Your task to perform on an android device: Search for the new nike air max shoes on Nike. Image 0: 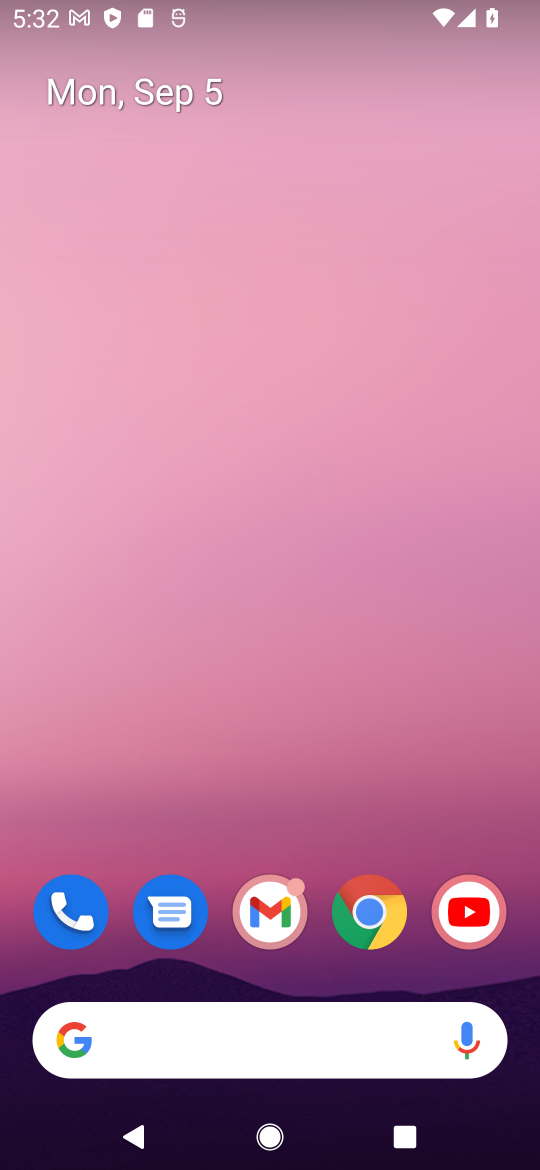
Step 0: click (376, 917)
Your task to perform on an android device: Search for the new nike air max shoes on Nike. Image 1: 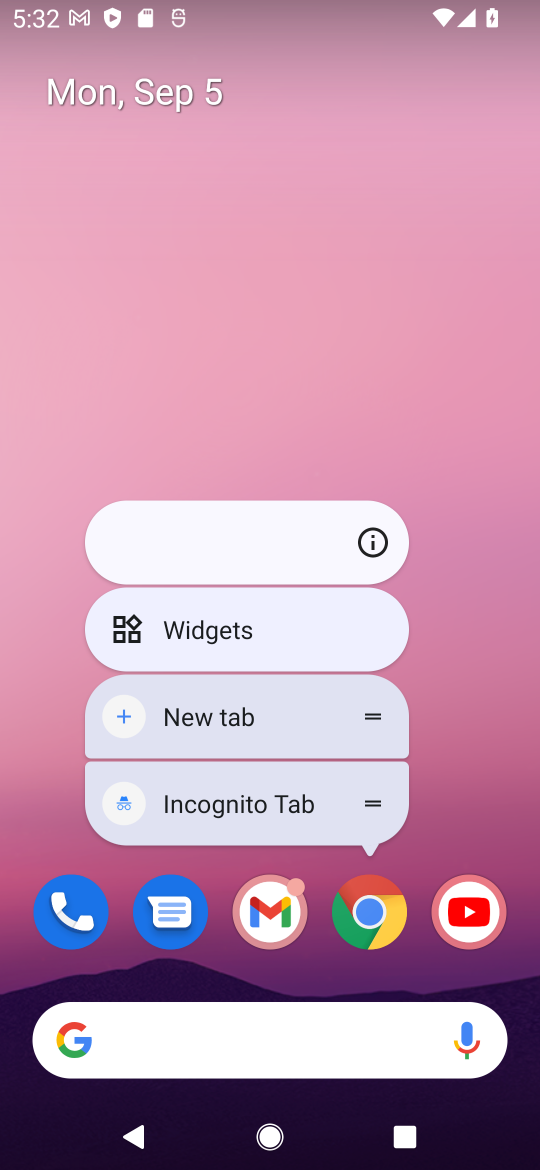
Step 1: click (376, 920)
Your task to perform on an android device: Search for the new nike air max shoes on Nike. Image 2: 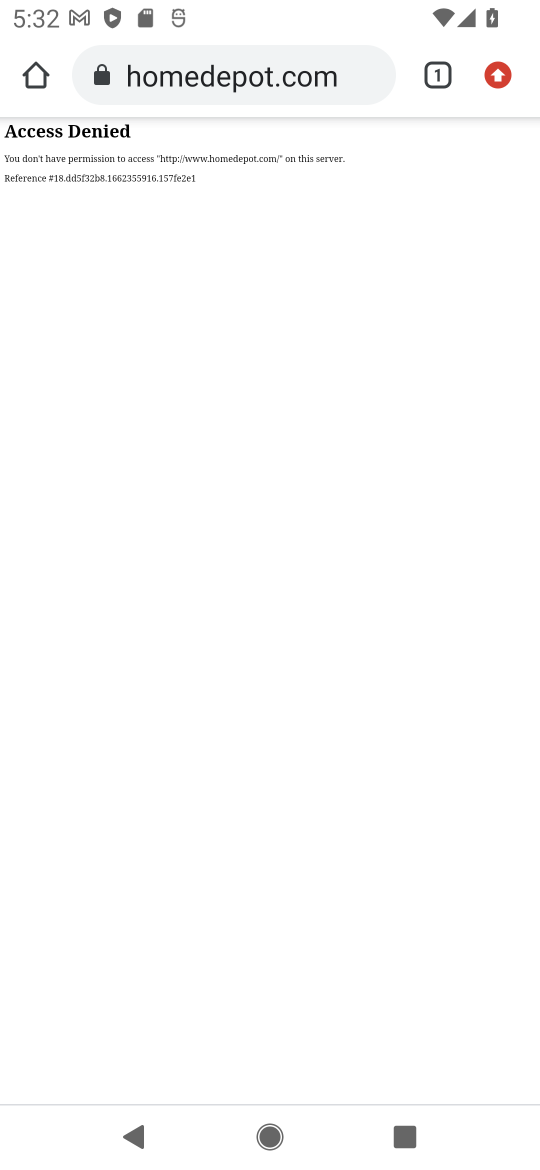
Step 2: click (232, 78)
Your task to perform on an android device: Search for the new nike air max shoes on Nike. Image 3: 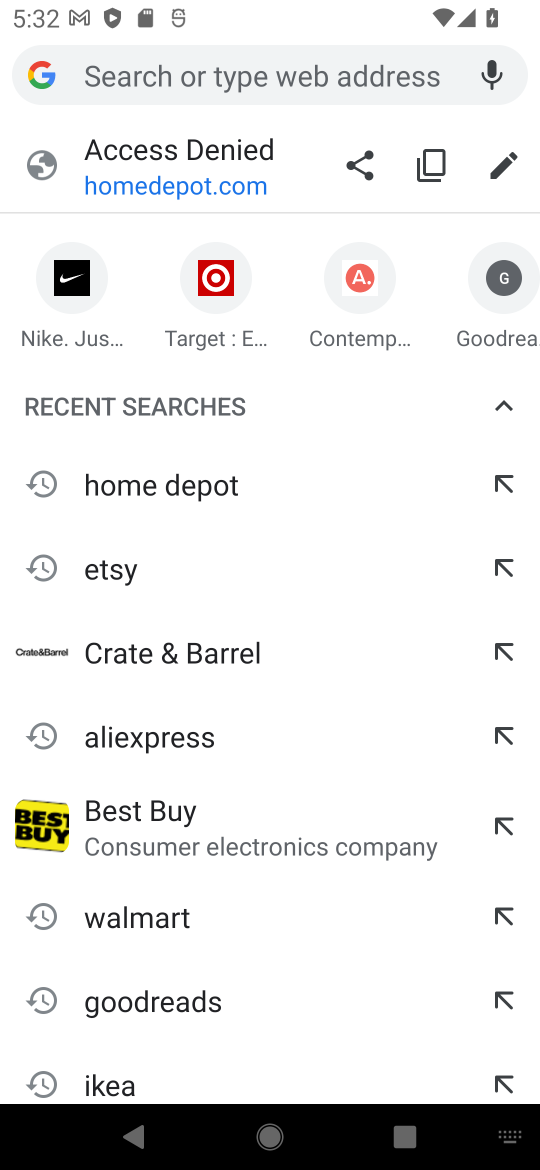
Step 3: type "nike"
Your task to perform on an android device: Search for the new nike air max shoes on Nike. Image 4: 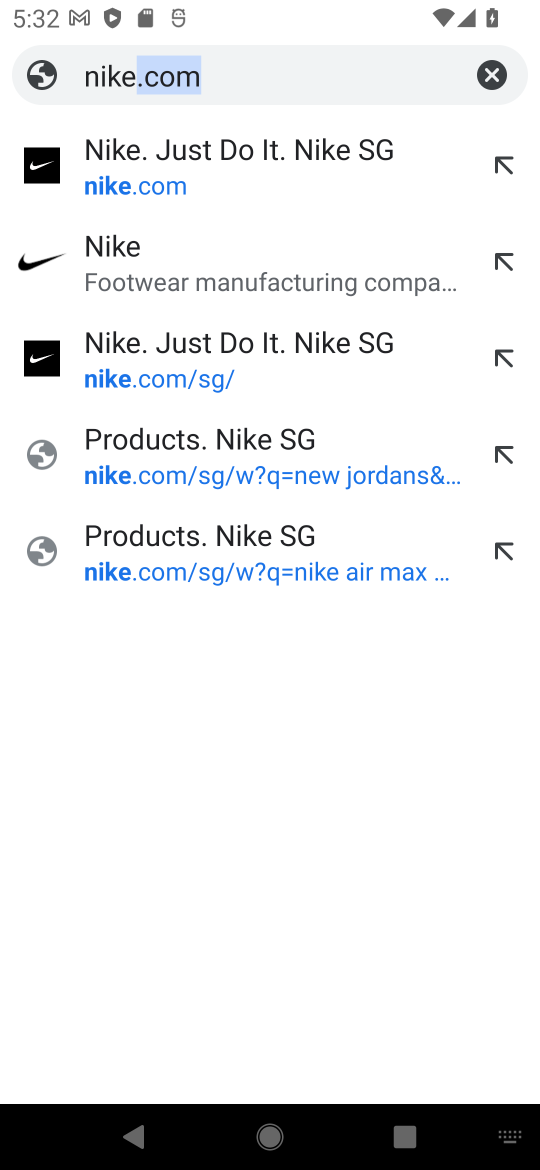
Step 4: press enter
Your task to perform on an android device: Search for the new nike air max shoes on Nike. Image 5: 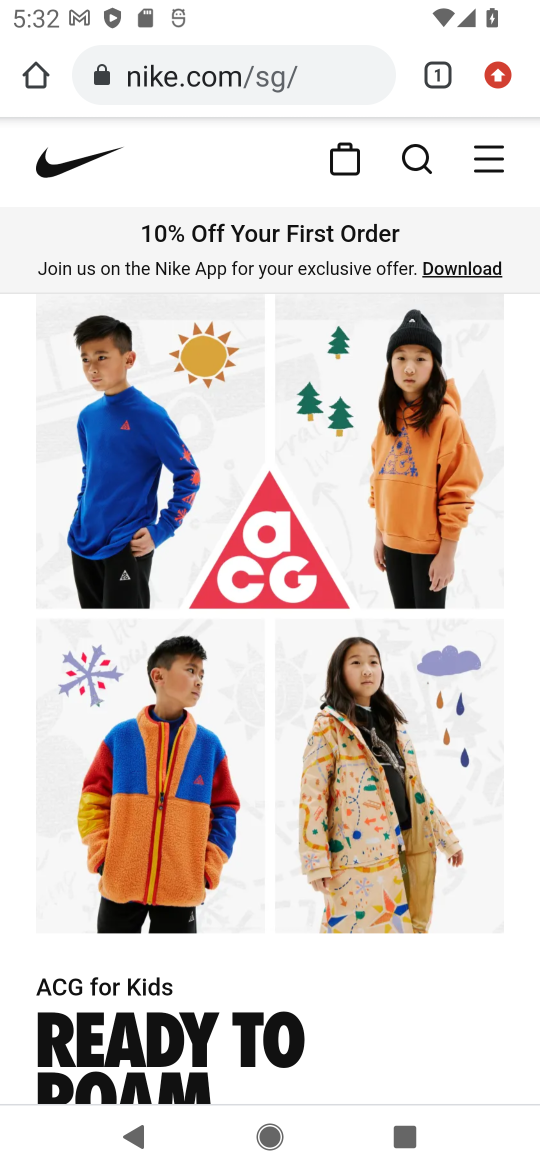
Step 5: click (409, 161)
Your task to perform on an android device: Search for the new nike air max shoes on Nike. Image 6: 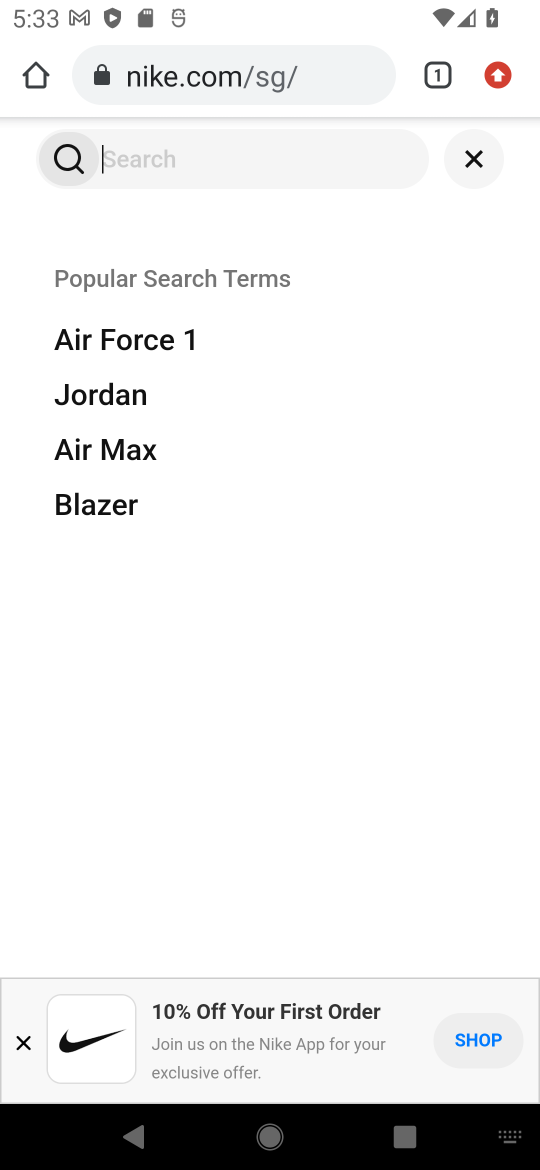
Step 6: type "new nike air max shoes"
Your task to perform on an android device: Search for the new nike air max shoes on Nike. Image 7: 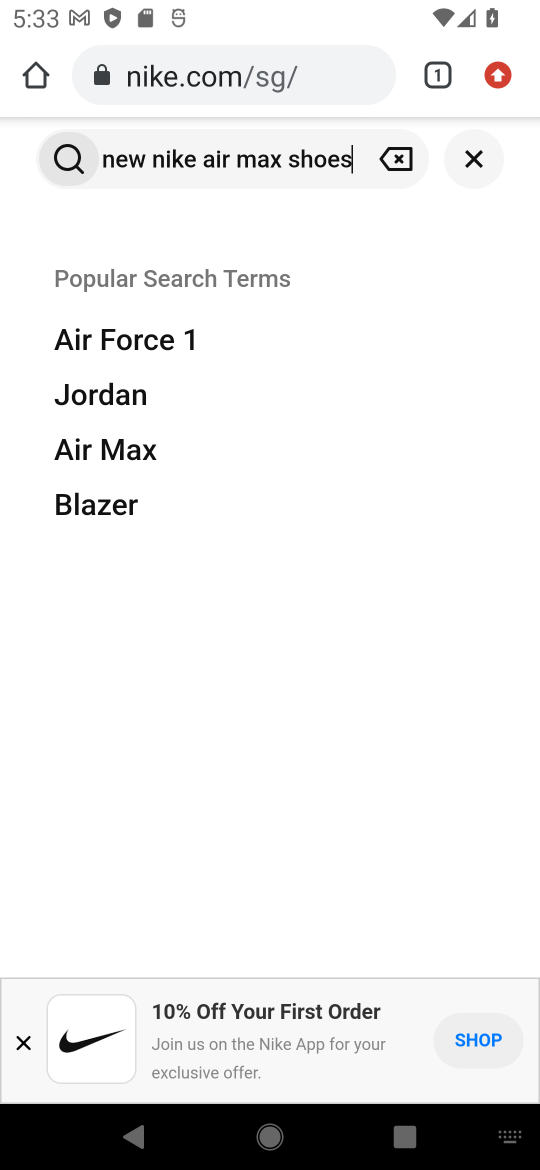
Step 7: press enter
Your task to perform on an android device: Search for the new nike air max shoes on Nike. Image 8: 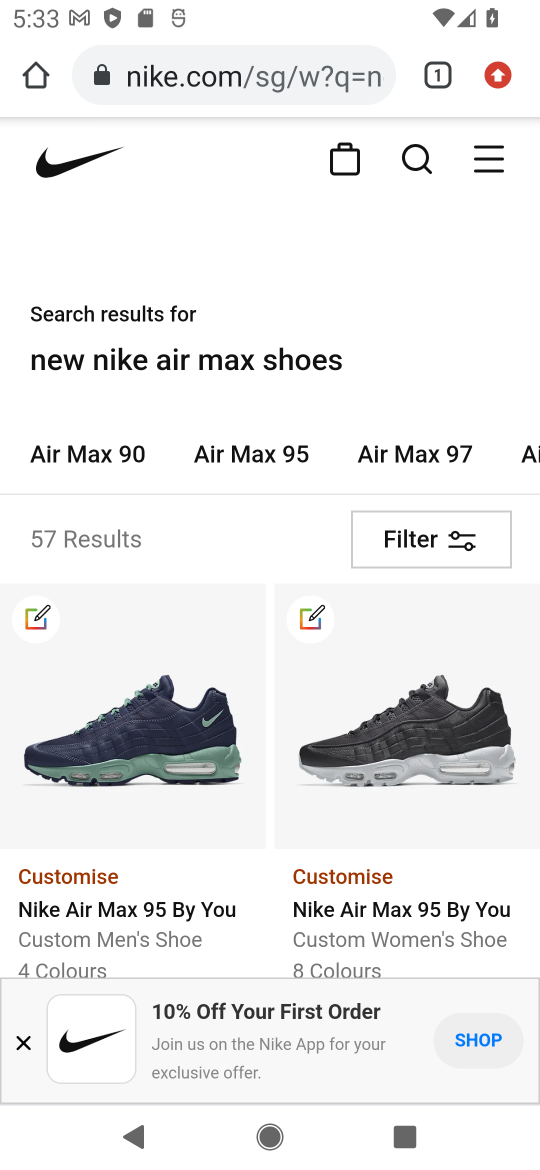
Step 8: click (415, 548)
Your task to perform on an android device: Search for the new nike air max shoes on Nike. Image 9: 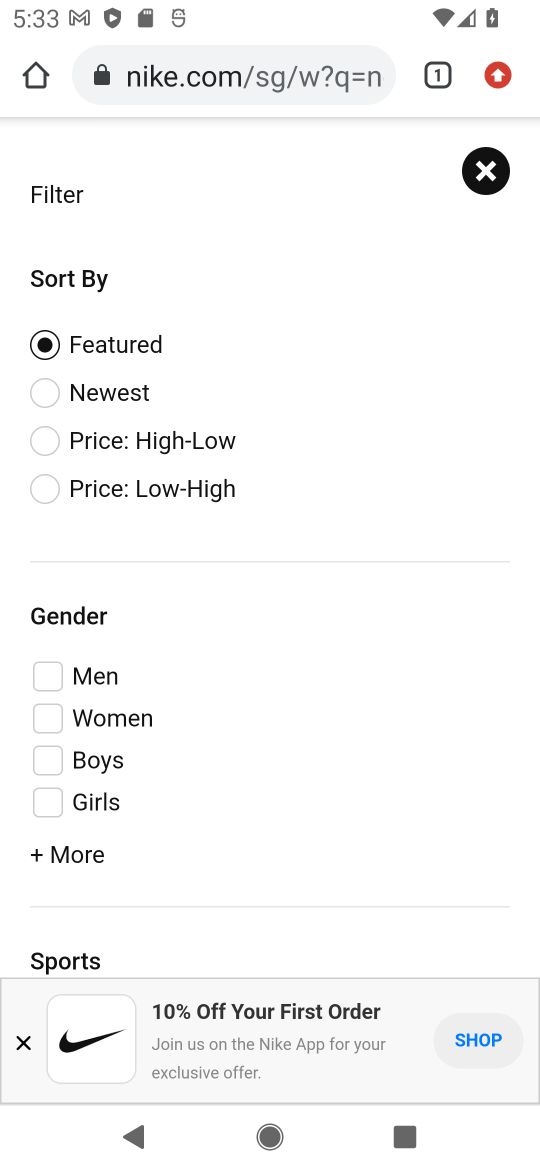
Step 9: click (116, 386)
Your task to perform on an android device: Search for the new nike air max shoes on Nike. Image 10: 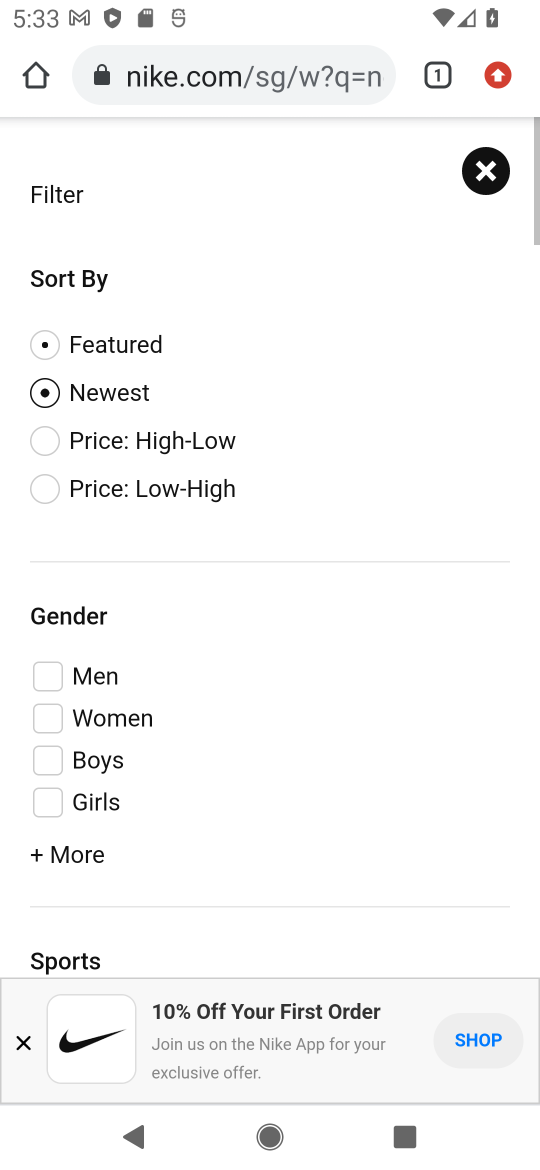
Step 10: click (77, 392)
Your task to perform on an android device: Search for the new nike air max shoes on Nike. Image 11: 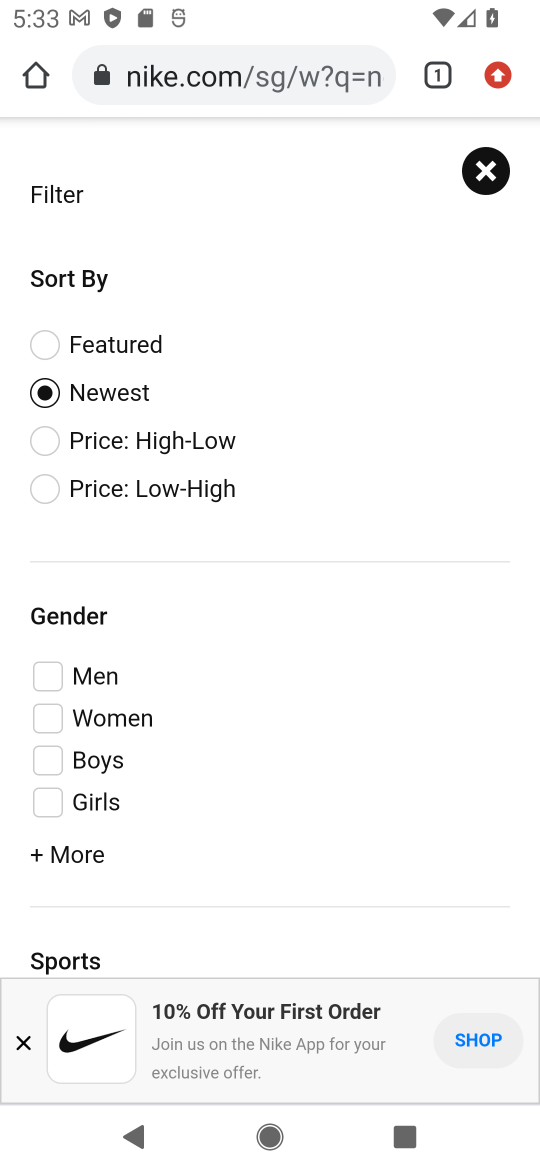
Step 11: click (24, 1042)
Your task to perform on an android device: Search for the new nike air max shoes on Nike. Image 12: 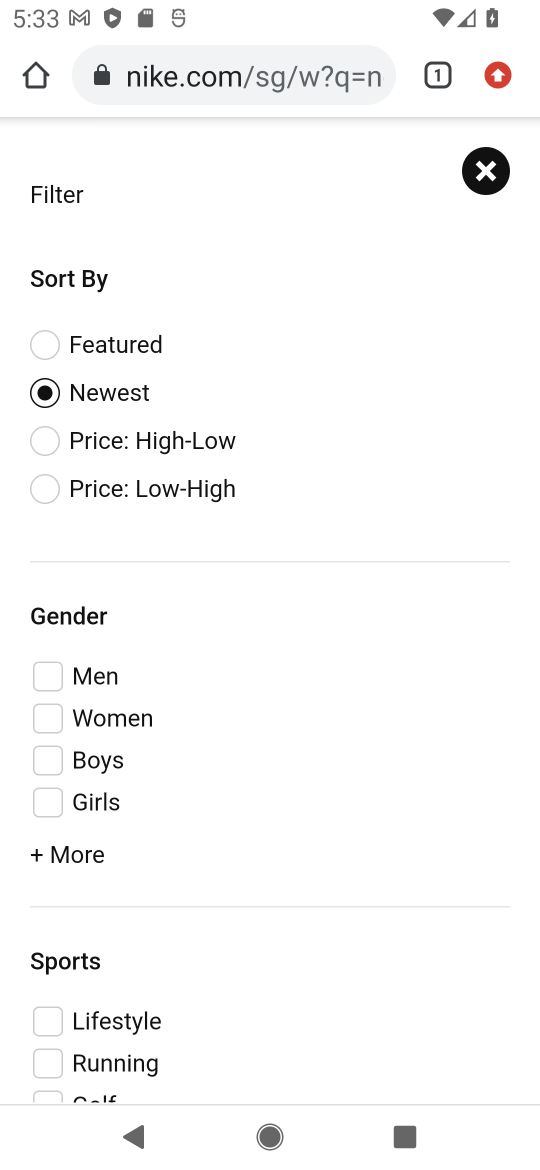
Step 12: click (484, 178)
Your task to perform on an android device: Search for the new nike air max shoes on Nike. Image 13: 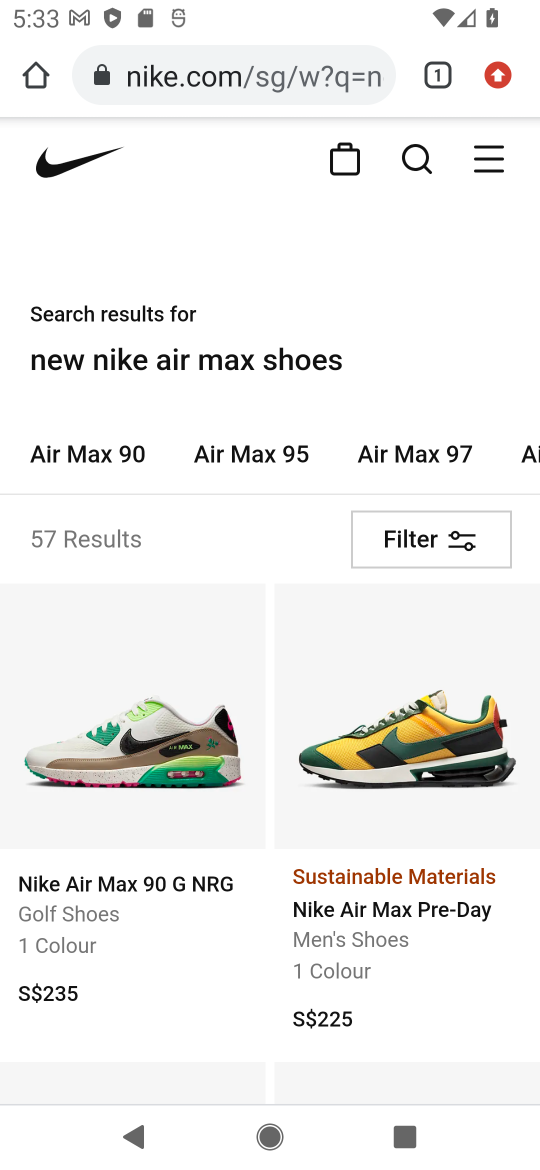
Step 13: task complete